Your task to perform on an android device: empty trash in google photos Image 0: 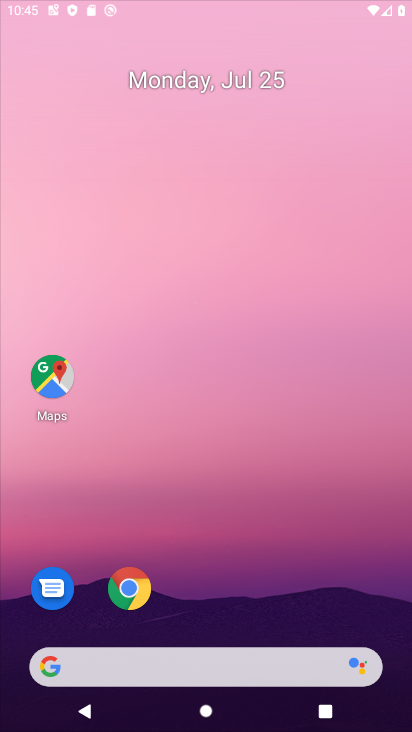
Step 0: drag from (278, 191) to (271, 284)
Your task to perform on an android device: empty trash in google photos Image 1: 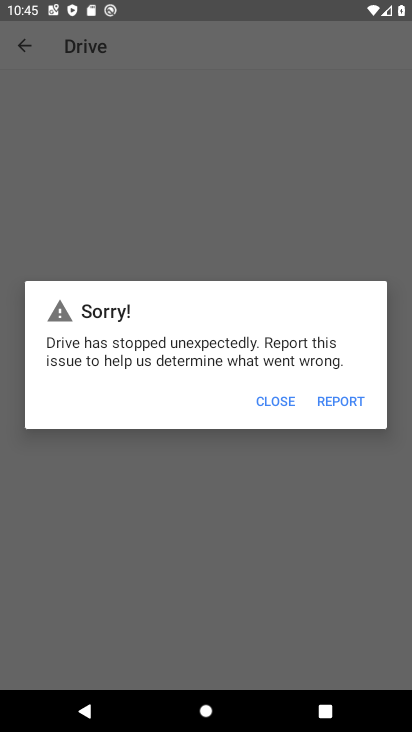
Step 1: press home button
Your task to perform on an android device: empty trash in google photos Image 2: 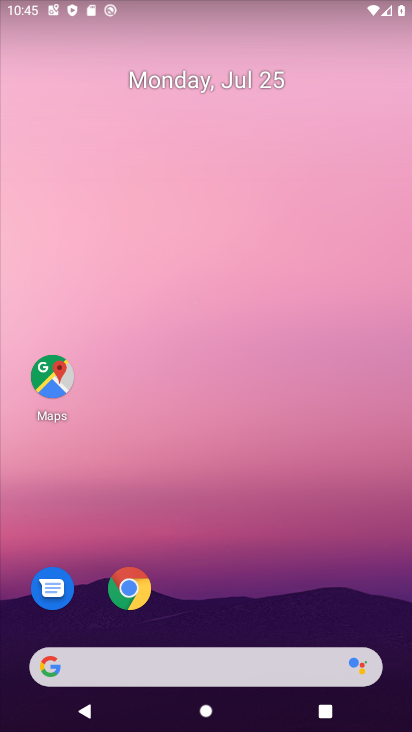
Step 2: drag from (351, 574) to (319, 137)
Your task to perform on an android device: empty trash in google photos Image 3: 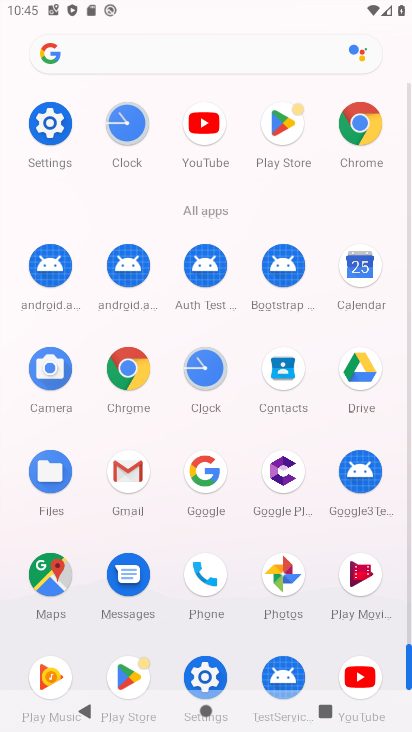
Step 3: click (279, 570)
Your task to perform on an android device: empty trash in google photos Image 4: 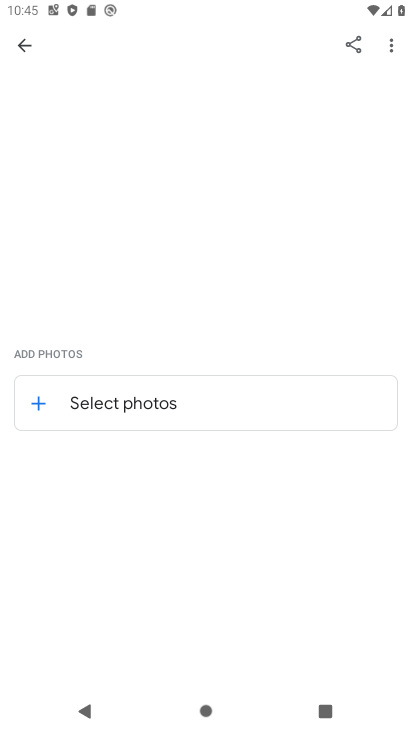
Step 4: click (30, 49)
Your task to perform on an android device: empty trash in google photos Image 5: 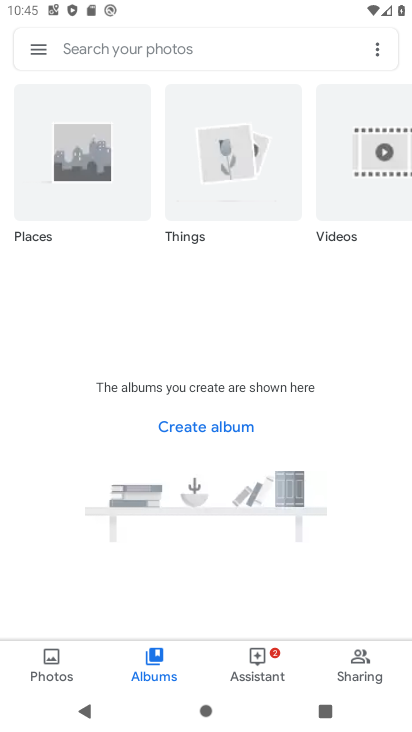
Step 5: click (30, 49)
Your task to perform on an android device: empty trash in google photos Image 6: 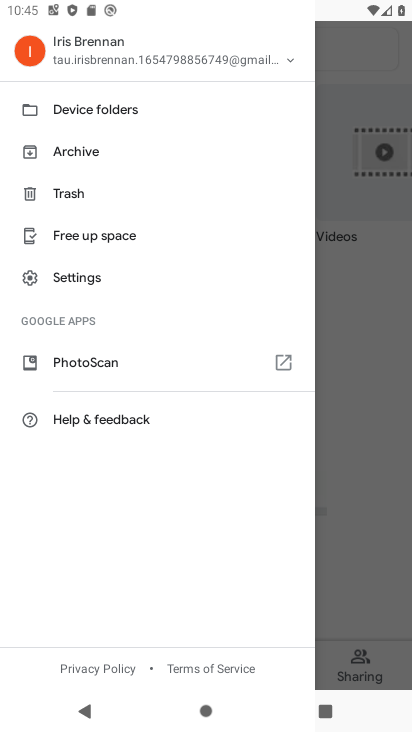
Step 6: click (94, 188)
Your task to perform on an android device: empty trash in google photos Image 7: 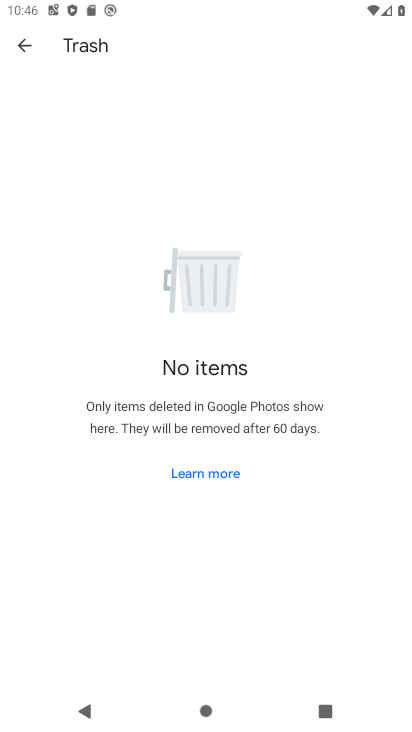
Step 7: task complete